Your task to perform on an android device: Open Reddit.com Image 0: 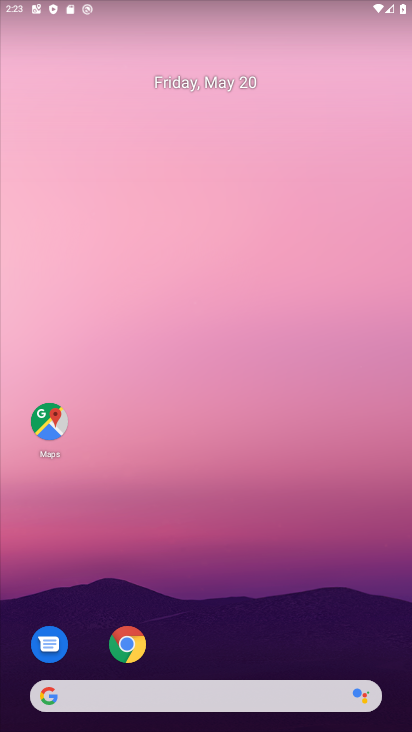
Step 0: click (129, 646)
Your task to perform on an android device: Open Reddit.com Image 1: 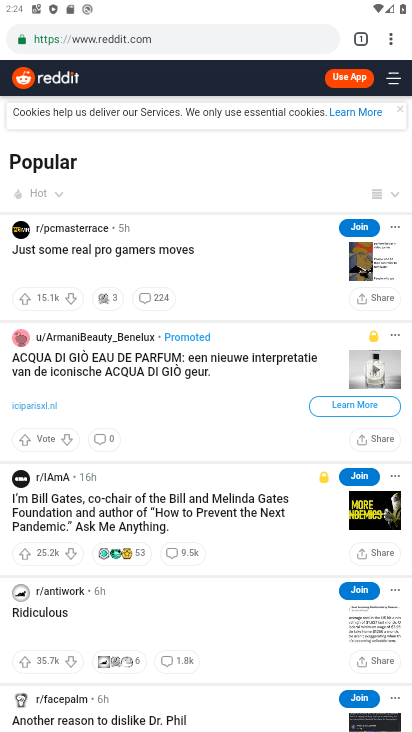
Step 1: click (287, 31)
Your task to perform on an android device: Open Reddit.com Image 2: 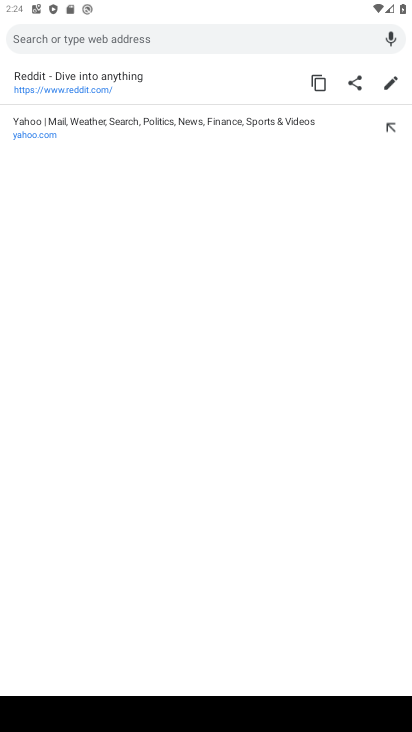
Step 2: type "reddit.com"
Your task to perform on an android device: Open Reddit.com Image 3: 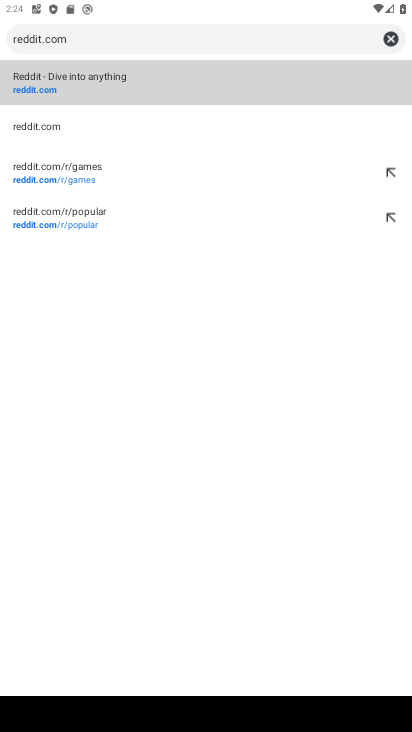
Step 3: click (255, 80)
Your task to perform on an android device: Open Reddit.com Image 4: 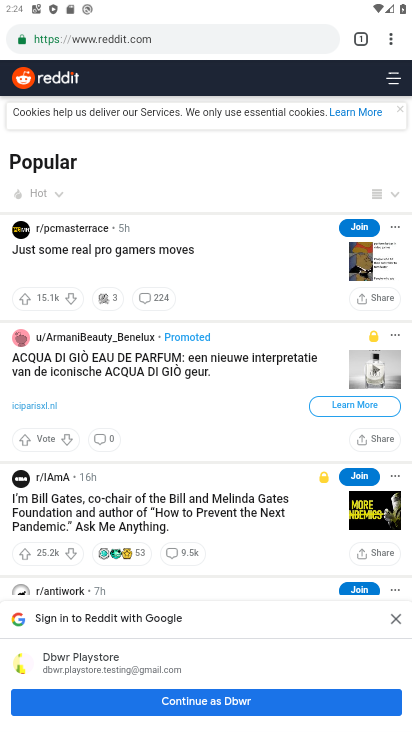
Step 4: task complete